Your task to perform on an android device: uninstall "Google Keep" Image 0: 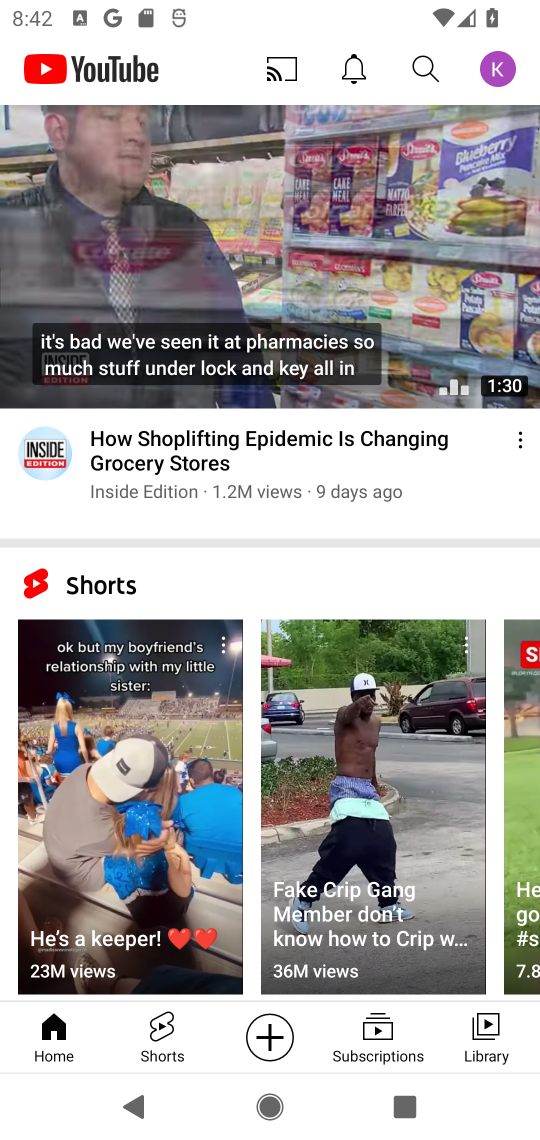
Step 0: press home button
Your task to perform on an android device: uninstall "Google Keep" Image 1: 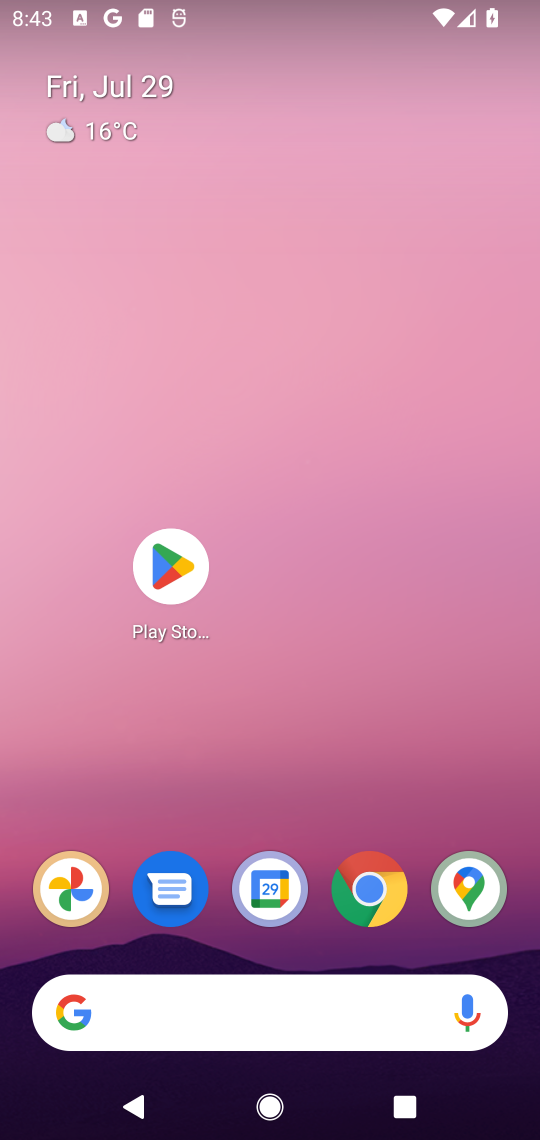
Step 1: click (159, 550)
Your task to perform on an android device: uninstall "Google Keep" Image 2: 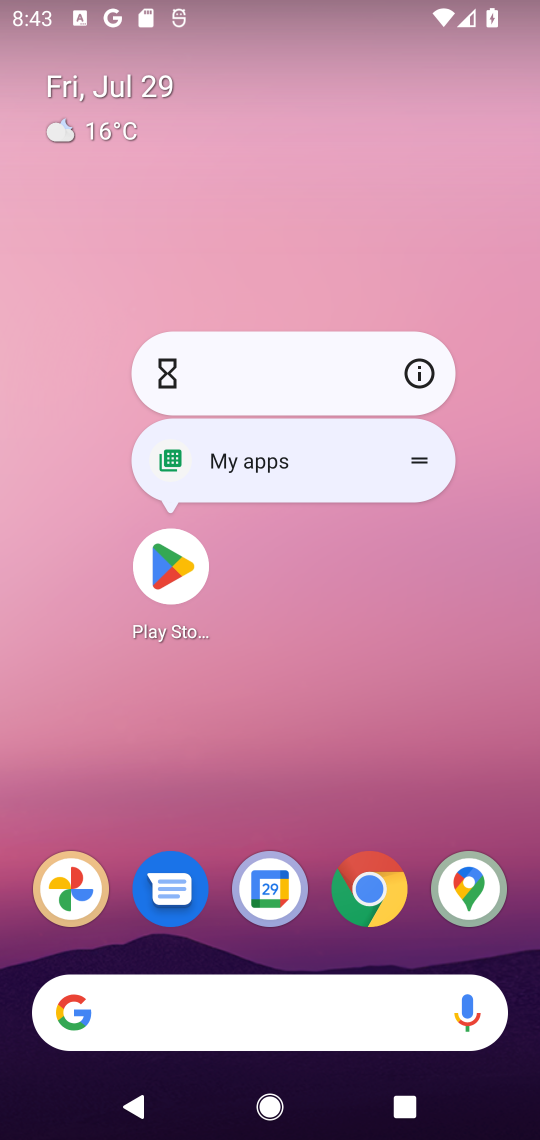
Step 2: click (169, 569)
Your task to perform on an android device: uninstall "Google Keep" Image 3: 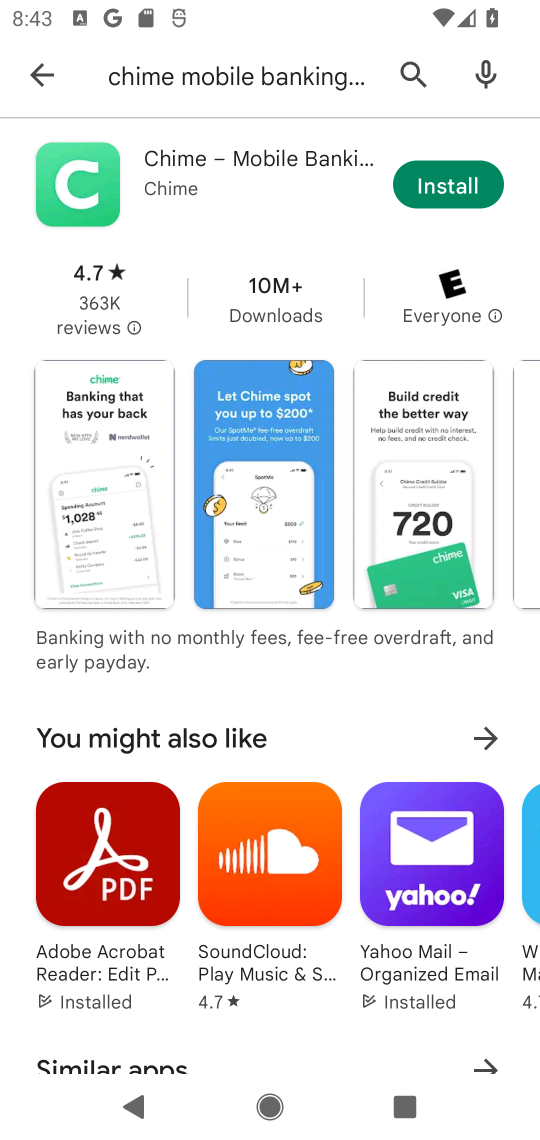
Step 3: click (413, 68)
Your task to perform on an android device: uninstall "Google Keep" Image 4: 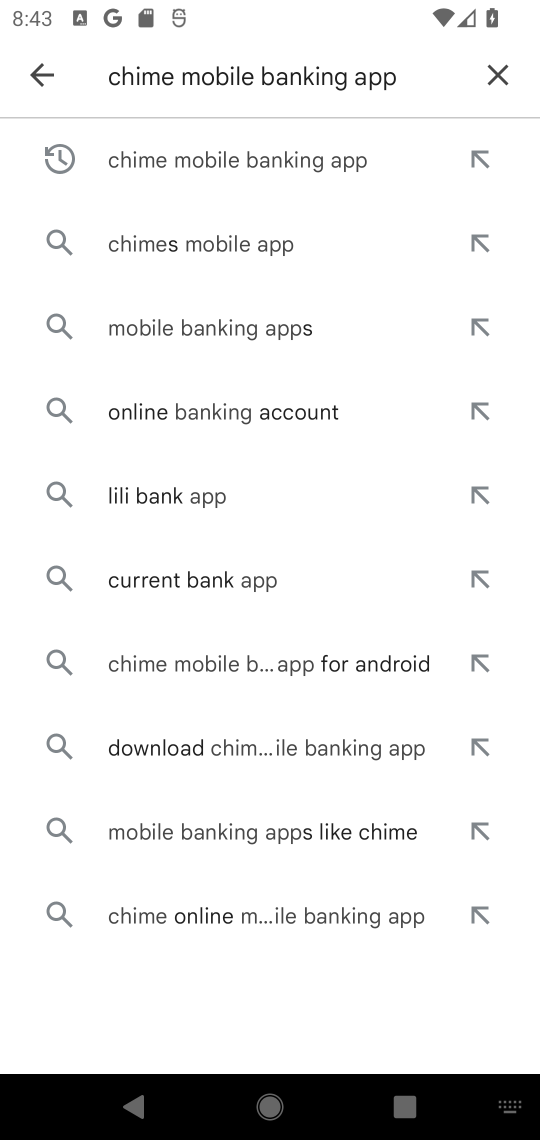
Step 4: click (507, 74)
Your task to perform on an android device: uninstall "Google Keep" Image 5: 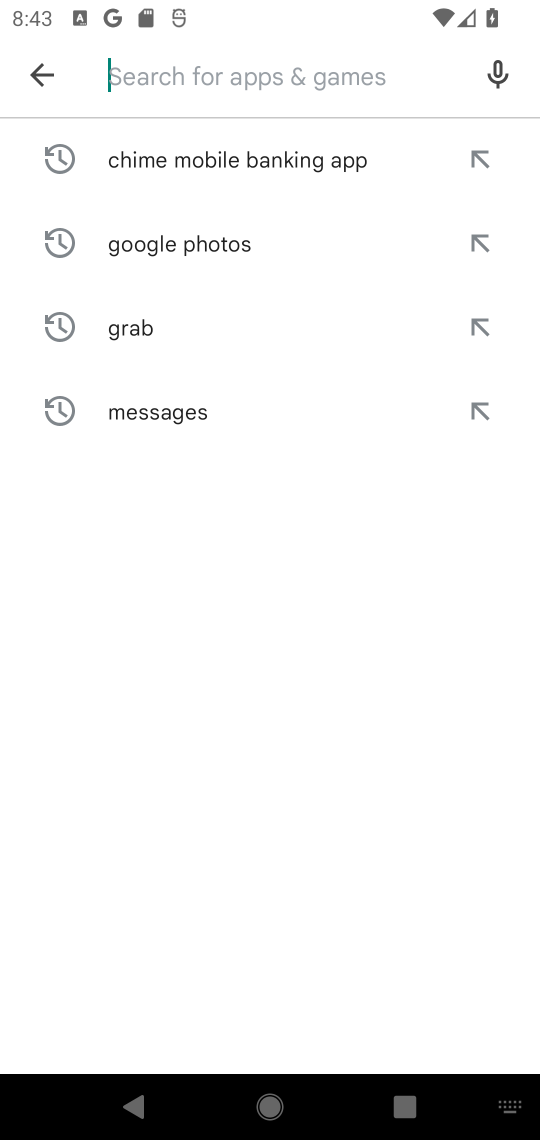
Step 5: type "Google Keep"
Your task to perform on an android device: uninstall "Google Keep" Image 6: 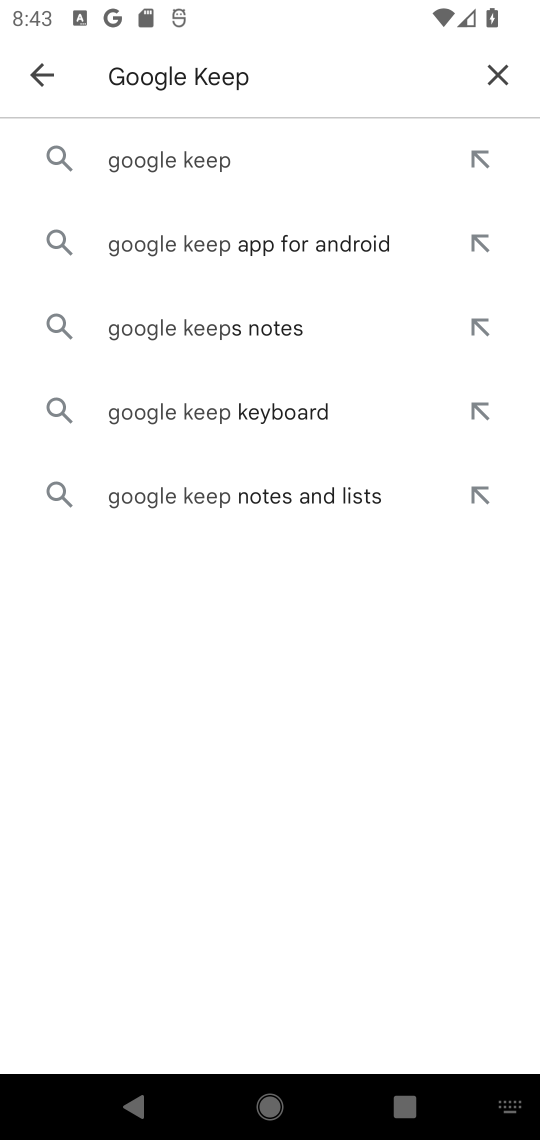
Step 6: click (218, 162)
Your task to perform on an android device: uninstall "Google Keep" Image 7: 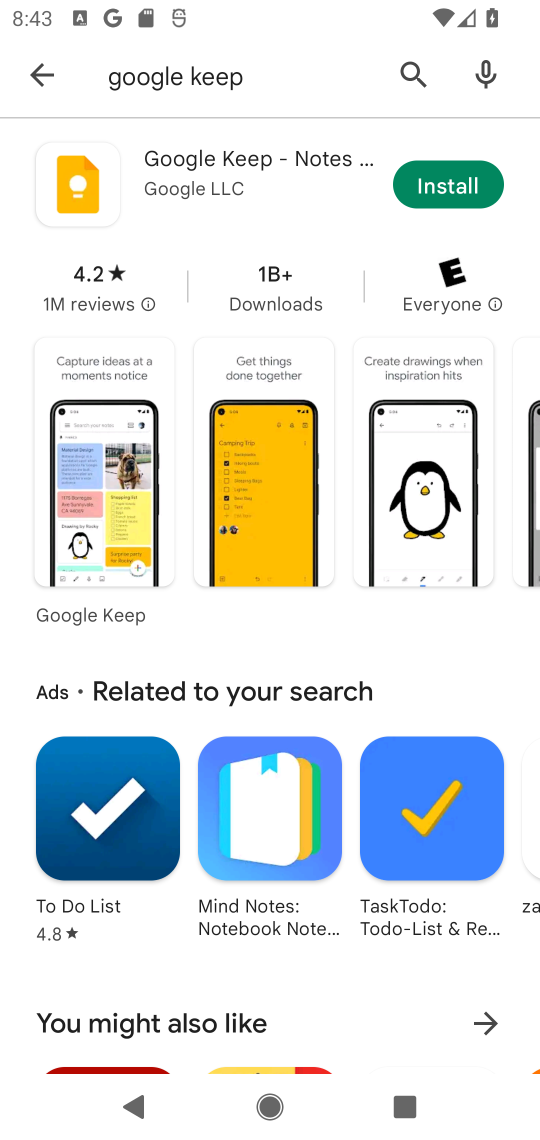
Step 7: task complete